Your task to perform on an android device: allow cookies in the chrome app Image 0: 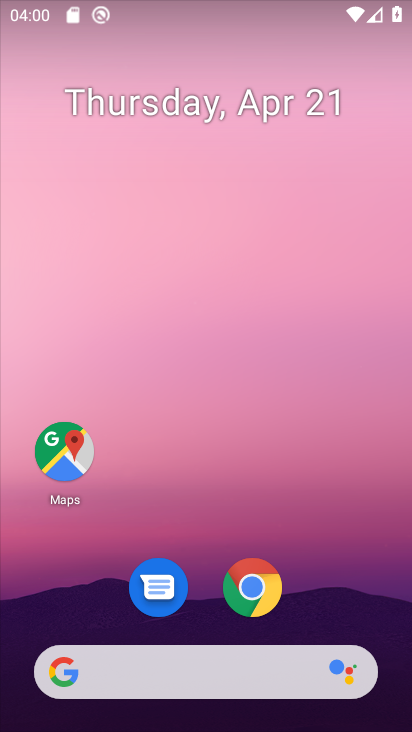
Step 0: drag from (334, 606) to (328, 181)
Your task to perform on an android device: allow cookies in the chrome app Image 1: 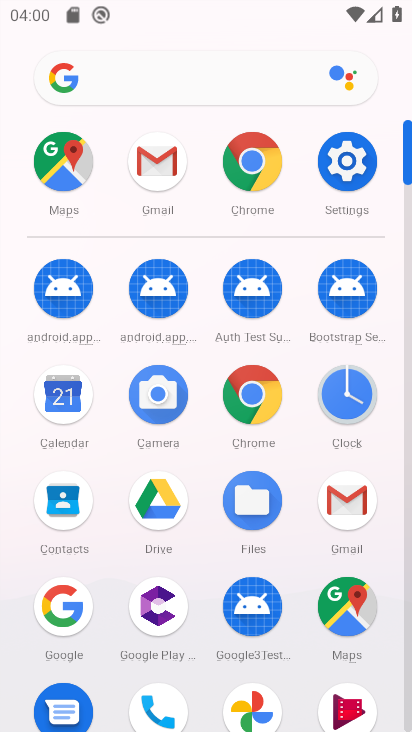
Step 1: click (269, 421)
Your task to perform on an android device: allow cookies in the chrome app Image 2: 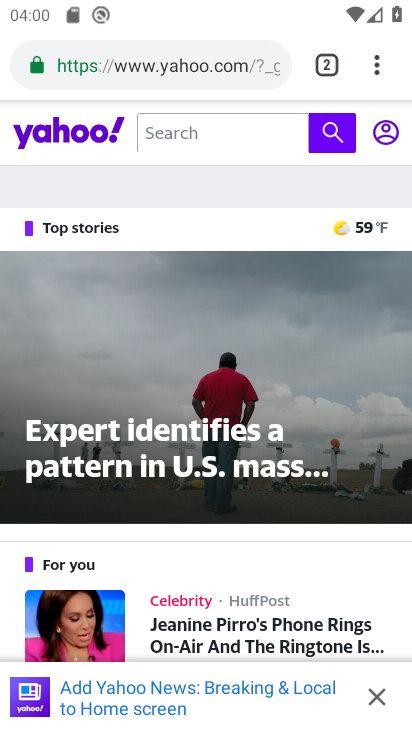
Step 2: click (377, 69)
Your task to perform on an android device: allow cookies in the chrome app Image 3: 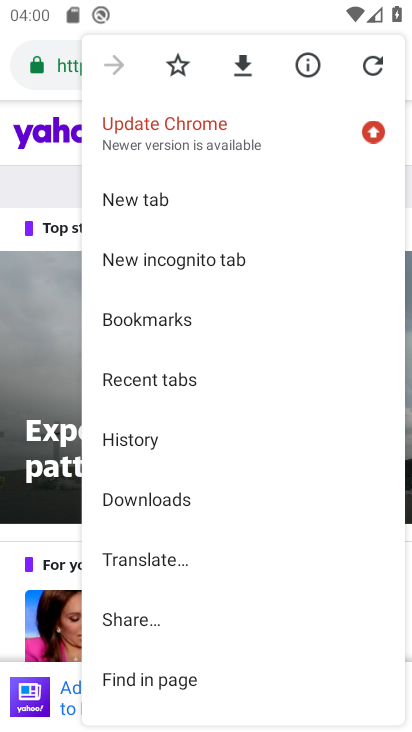
Step 3: drag from (283, 617) to (305, 372)
Your task to perform on an android device: allow cookies in the chrome app Image 4: 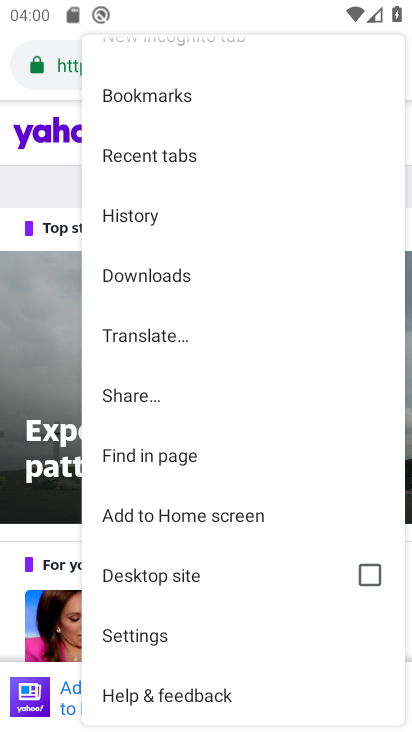
Step 4: click (174, 641)
Your task to perform on an android device: allow cookies in the chrome app Image 5: 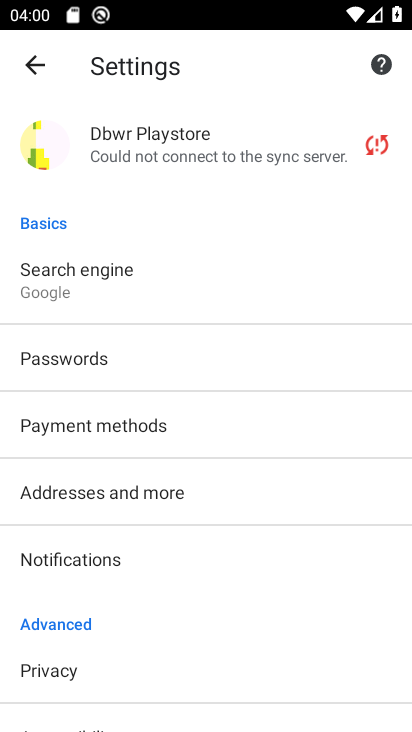
Step 5: drag from (267, 599) to (299, 389)
Your task to perform on an android device: allow cookies in the chrome app Image 6: 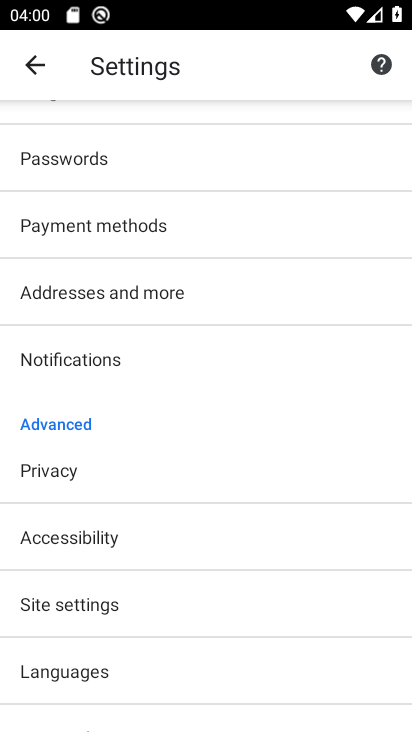
Step 6: click (239, 592)
Your task to perform on an android device: allow cookies in the chrome app Image 7: 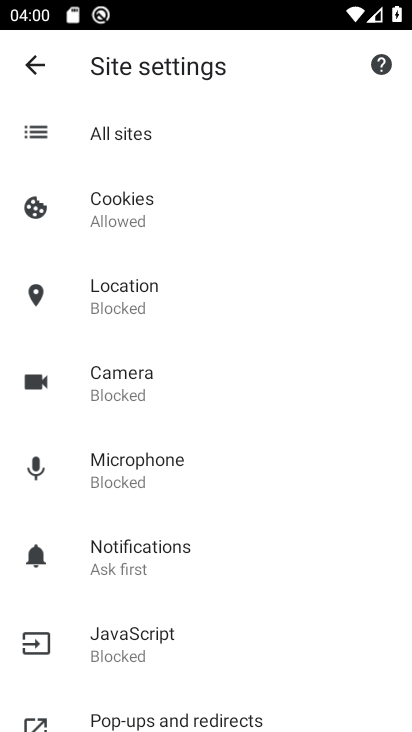
Step 7: click (165, 213)
Your task to perform on an android device: allow cookies in the chrome app Image 8: 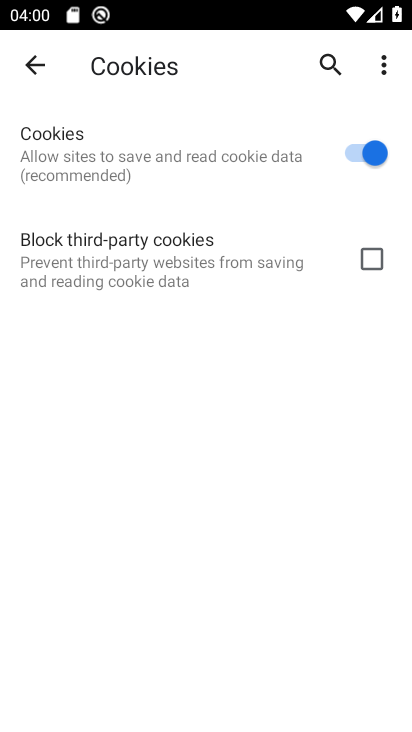
Step 8: task complete